Your task to perform on an android device: Go to settings Image 0: 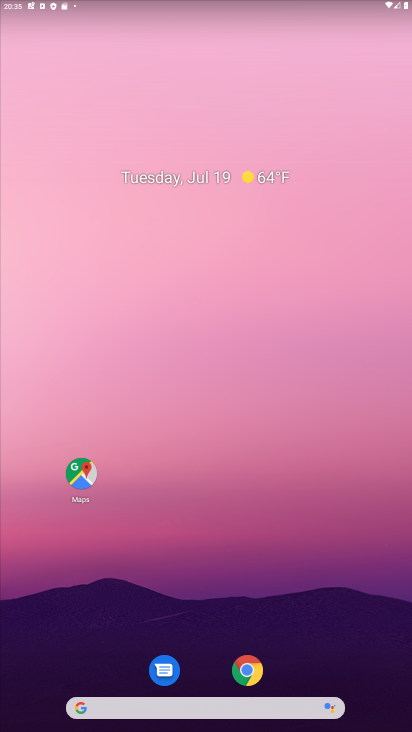
Step 0: drag from (242, 707) to (169, 4)
Your task to perform on an android device: Go to settings Image 1: 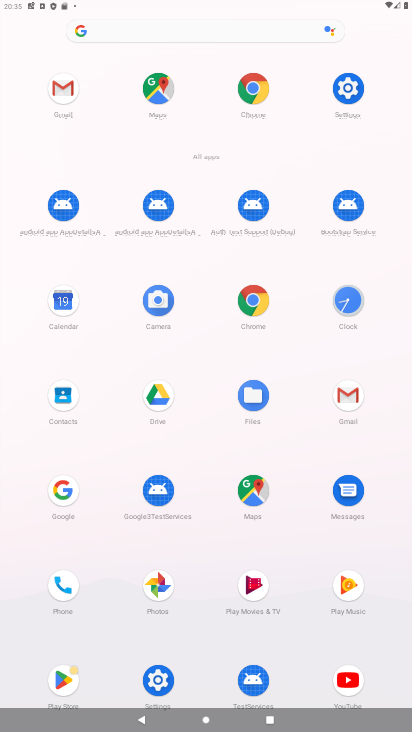
Step 1: click (357, 93)
Your task to perform on an android device: Go to settings Image 2: 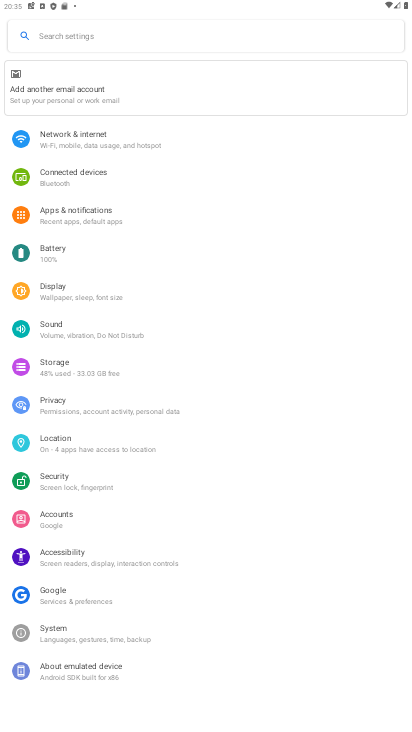
Step 2: task complete